Your task to perform on an android device: add a label to a message in the gmail app Image 0: 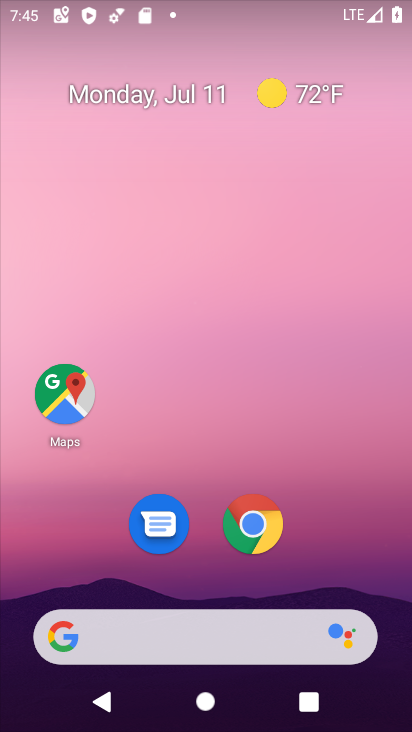
Step 0: drag from (333, 507) to (320, 15)
Your task to perform on an android device: add a label to a message in the gmail app Image 1: 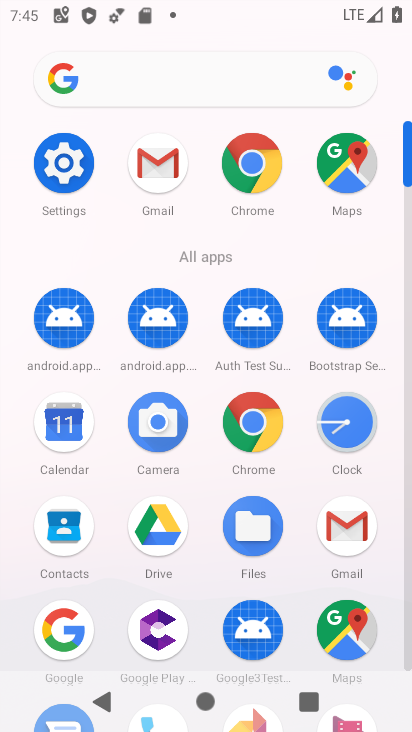
Step 1: click (160, 159)
Your task to perform on an android device: add a label to a message in the gmail app Image 2: 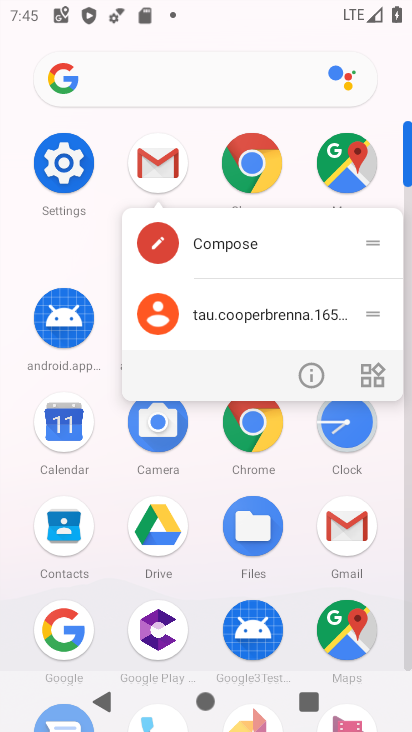
Step 2: click (160, 161)
Your task to perform on an android device: add a label to a message in the gmail app Image 3: 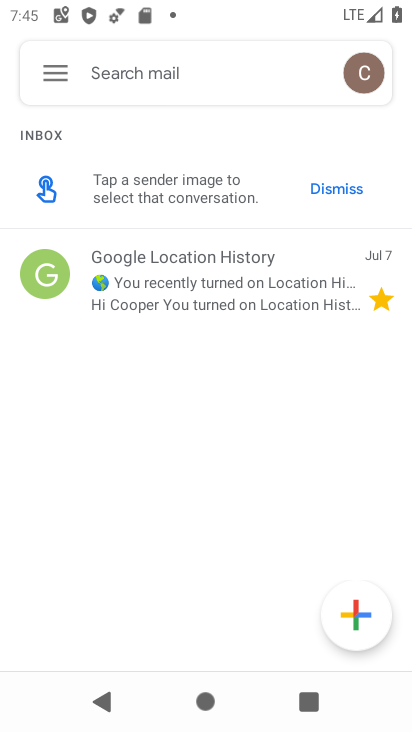
Step 3: click (159, 273)
Your task to perform on an android device: add a label to a message in the gmail app Image 4: 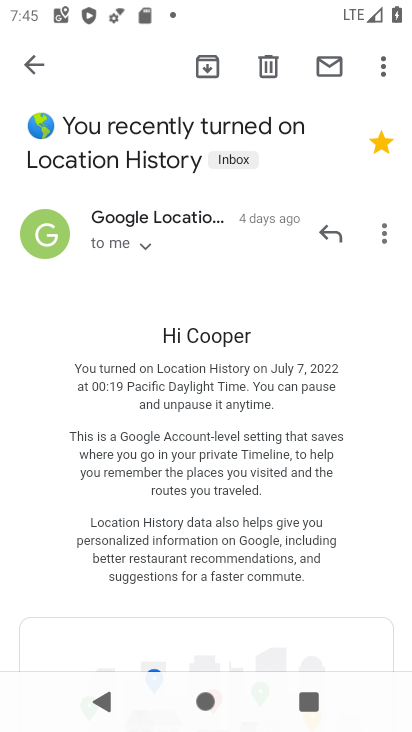
Step 4: click (383, 60)
Your task to perform on an android device: add a label to a message in the gmail app Image 5: 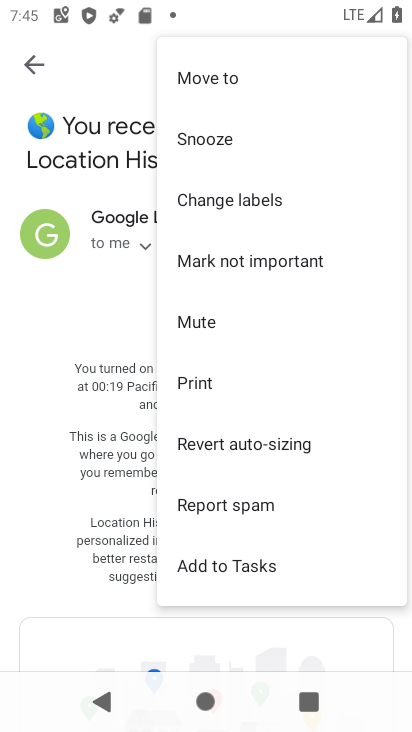
Step 5: click (275, 196)
Your task to perform on an android device: add a label to a message in the gmail app Image 6: 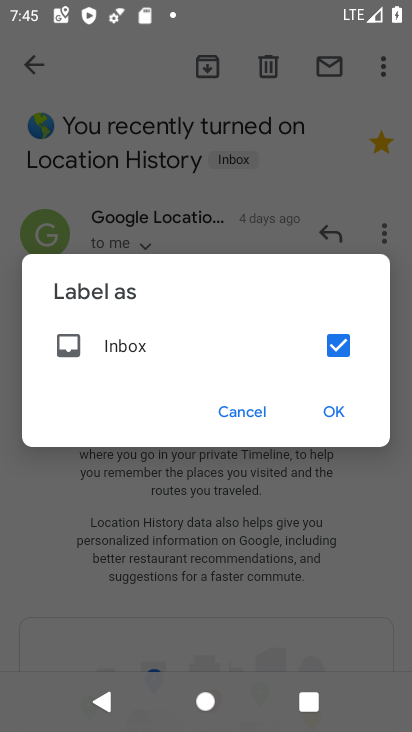
Step 6: click (335, 407)
Your task to perform on an android device: add a label to a message in the gmail app Image 7: 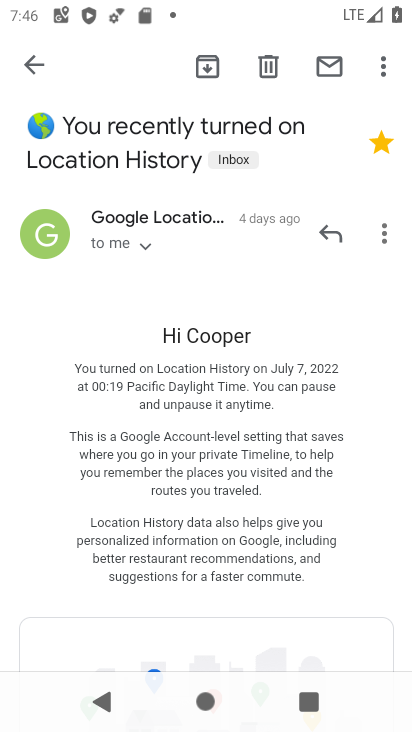
Step 7: click (31, 58)
Your task to perform on an android device: add a label to a message in the gmail app Image 8: 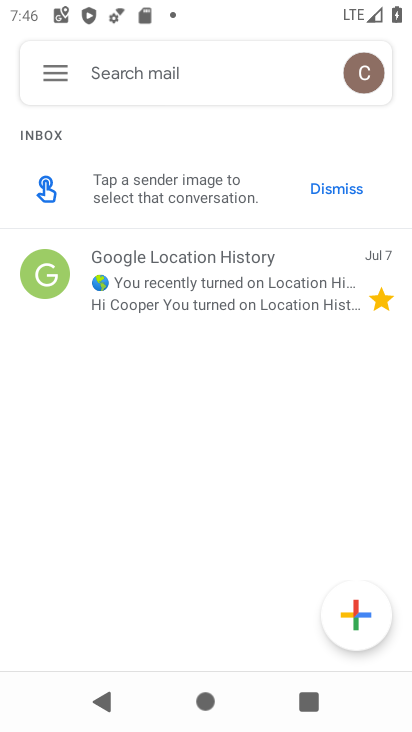
Step 8: task complete